Your task to perform on an android device: Go to accessibility settings Image 0: 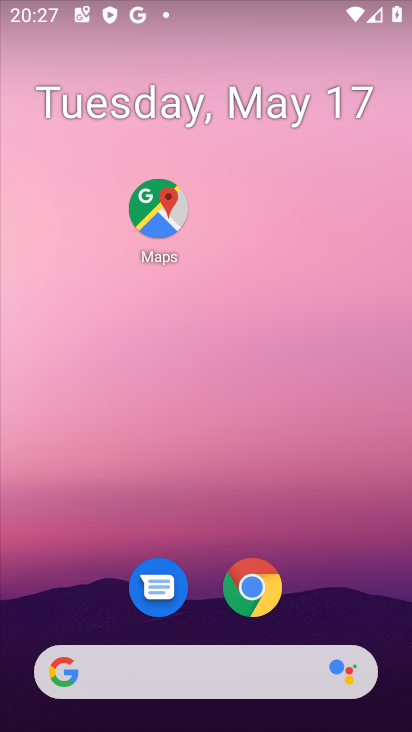
Step 0: drag from (0, 685) to (291, 123)
Your task to perform on an android device: Go to accessibility settings Image 1: 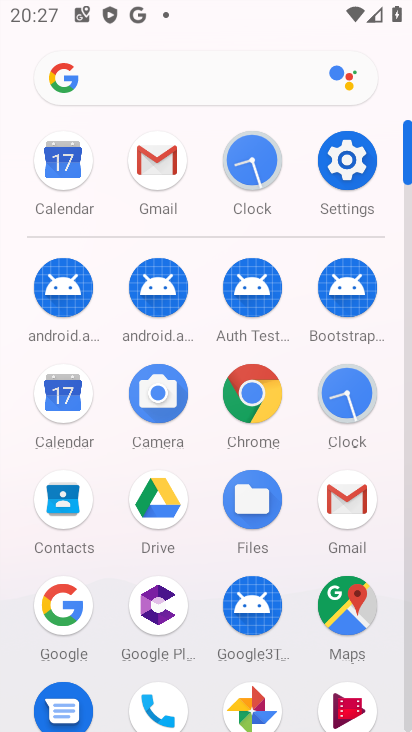
Step 1: click (340, 158)
Your task to perform on an android device: Go to accessibility settings Image 2: 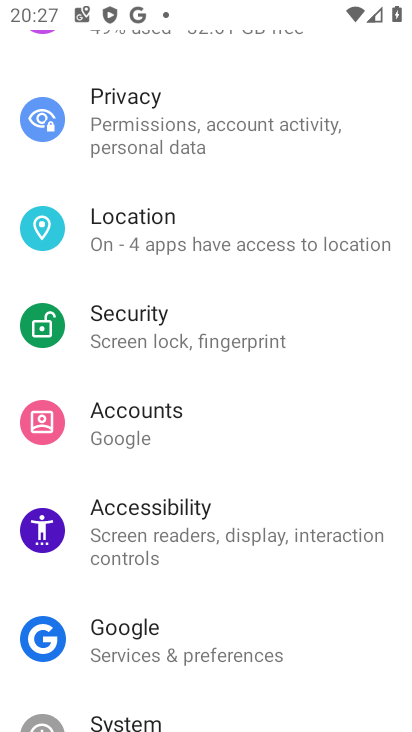
Step 2: click (183, 522)
Your task to perform on an android device: Go to accessibility settings Image 3: 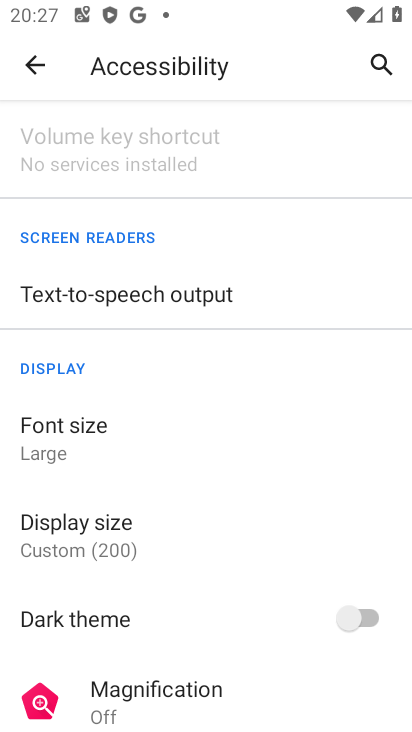
Step 3: task complete